Your task to perform on an android device: allow cookies in the chrome app Image 0: 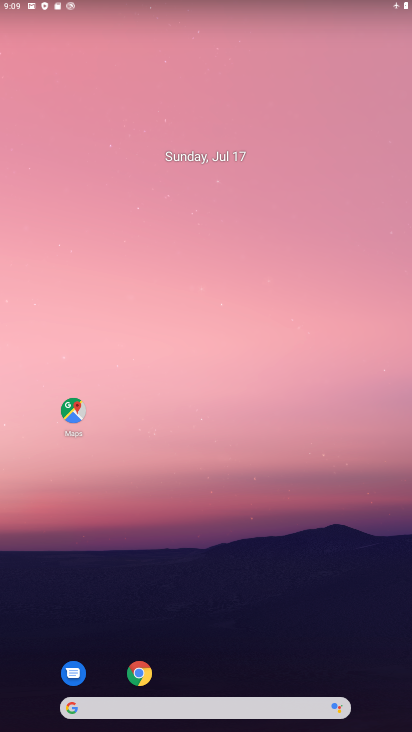
Step 0: click (334, 200)
Your task to perform on an android device: allow cookies in the chrome app Image 1: 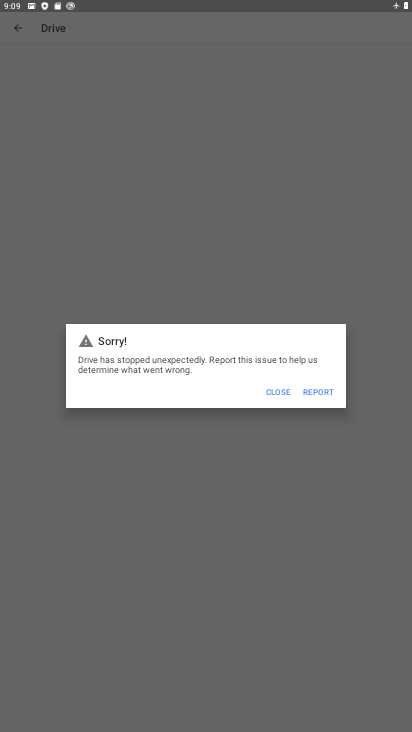
Step 1: press home button
Your task to perform on an android device: allow cookies in the chrome app Image 2: 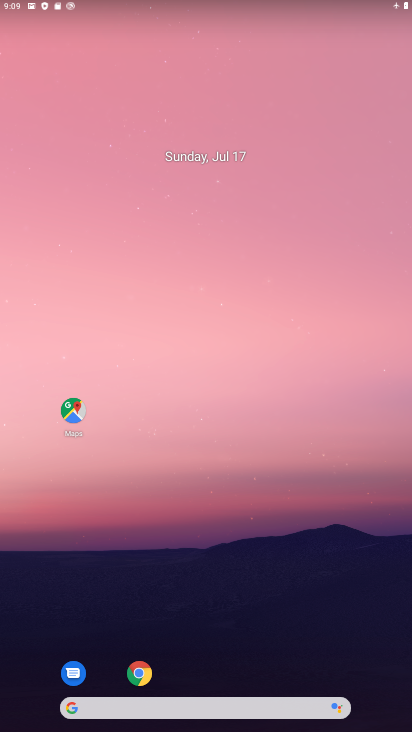
Step 2: click (138, 672)
Your task to perform on an android device: allow cookies in the chrome app Image 3: 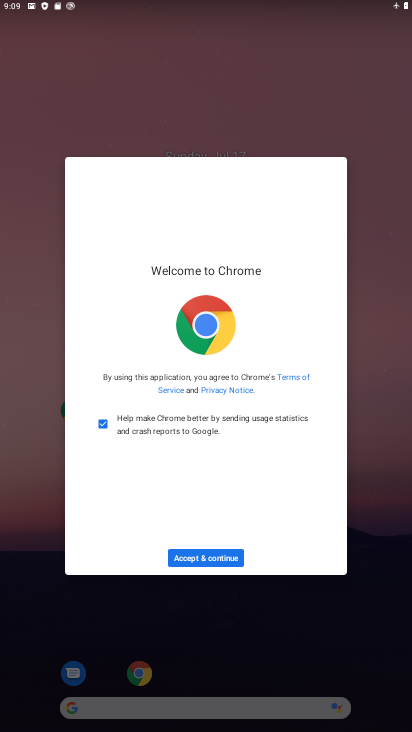
Step 3: click (209, 558)
Your task to perform on an android device: allow cookies in the chrome app Image 4: 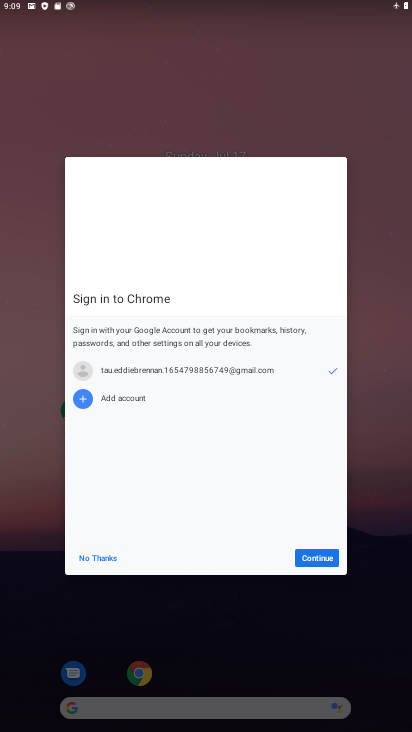
Step 4: click (316, 558)
Your task to perform on an android device: allow cookies in the chrome app Image 5: 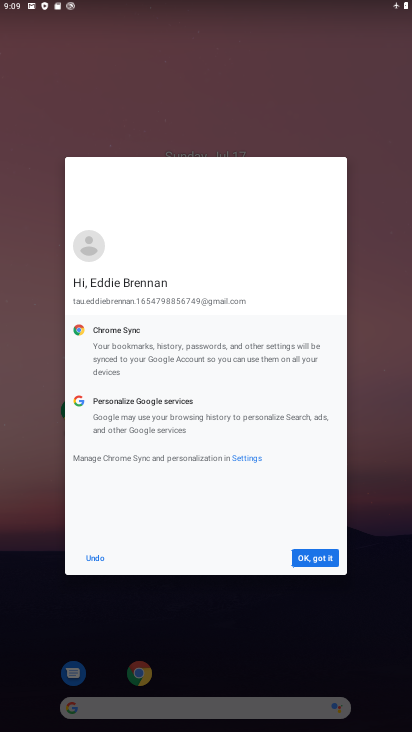
Step 5: click (316, 558)
Your task to perform on an android device: allow cookies in the chrome app Image 6: 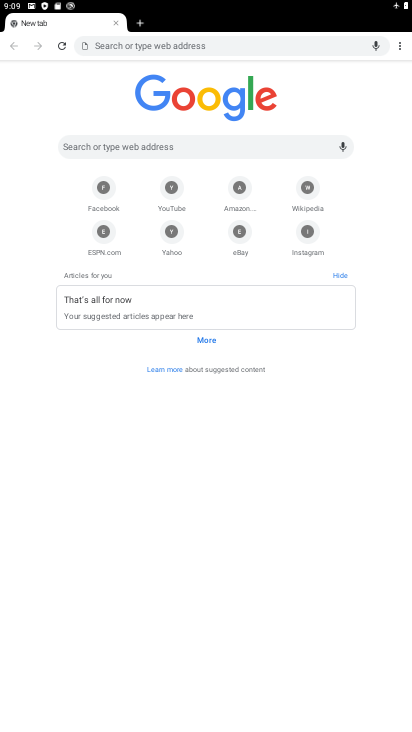
Step 6: click (398, 47)
Your task to perform on an android device: allow cookies in the chrome app Image 7: 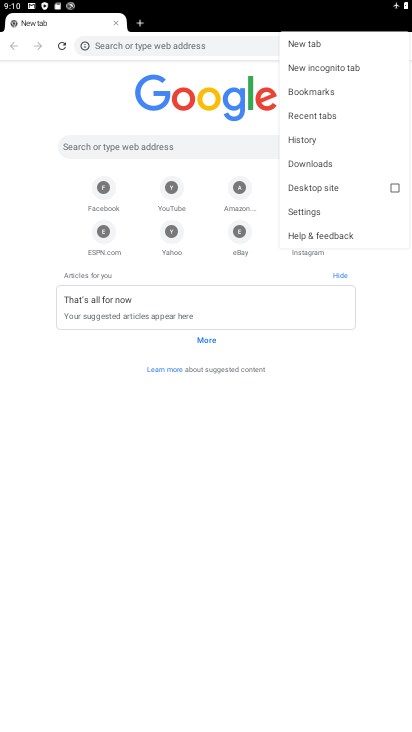
Step 7: click (300, 210)
Your task to perform on an android device: allow cookies in the chrome app Image 8: 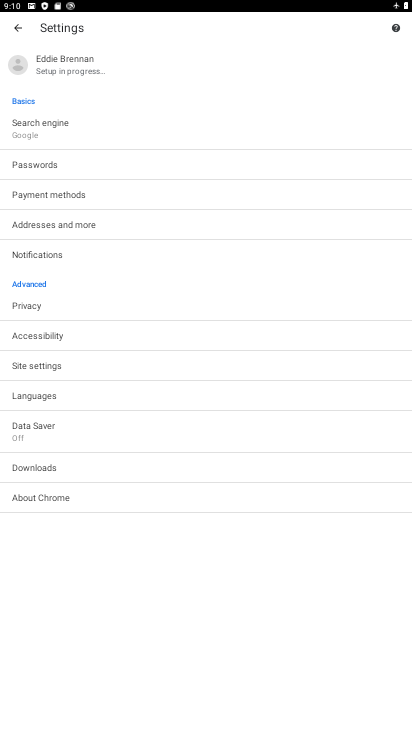
Step 8: click (36, 368)
Your task to perform on an android device: allow cookies in the chrome app Image 9: 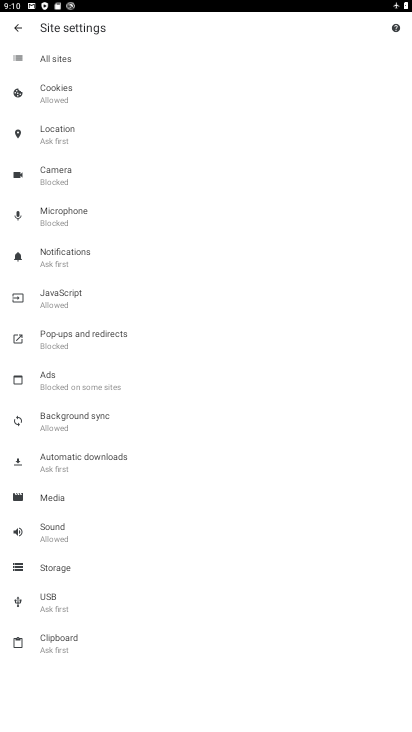
Step 9: click (63, 98)
Your task to perform on an android device: allow cookies in the chrome app Image 10: 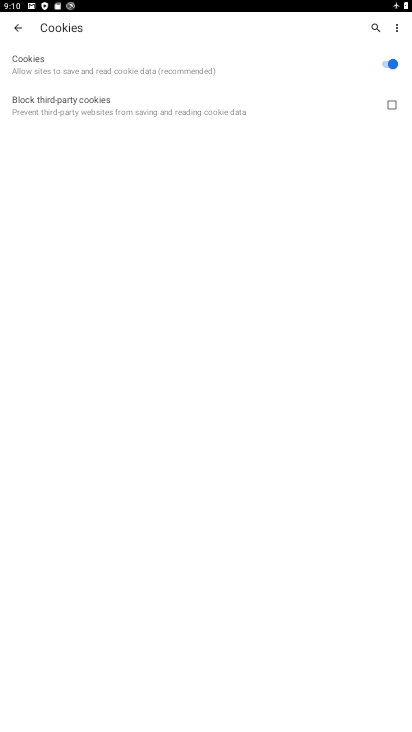
Step 10: task complete